Your task to perform on an android device: Toggle the flashlight Image 0: 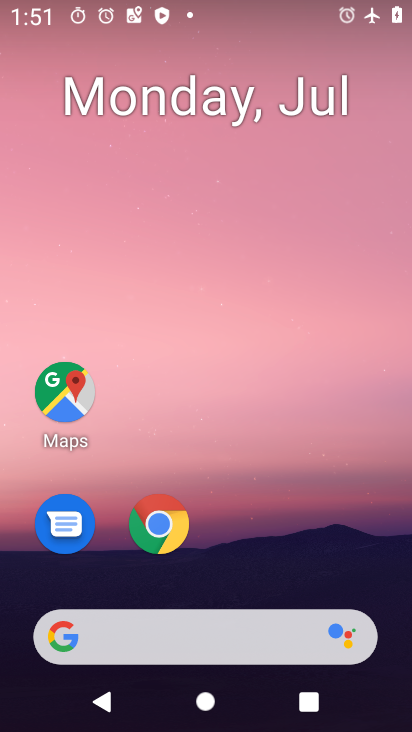
Step 0: drag from (221, 21) to (259, 285)
Your task to perform on an android device: Toggle the flashlight Image 1: 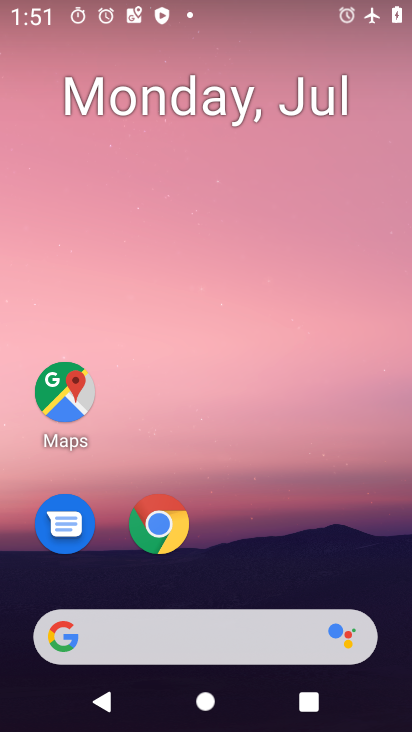
Step 1: task complete